Your task to perform on an android device: manage bookmarks in the chrome app Image 0: 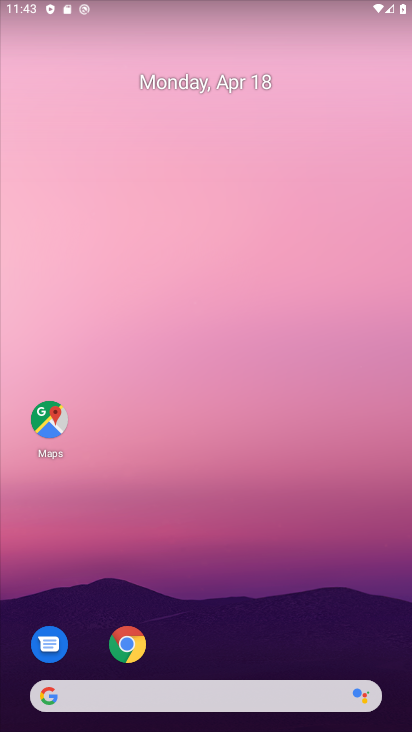
Step 0: click (134, 646)
Your task to perform on an android device: manage bookmarks in the chrome app Image 1: 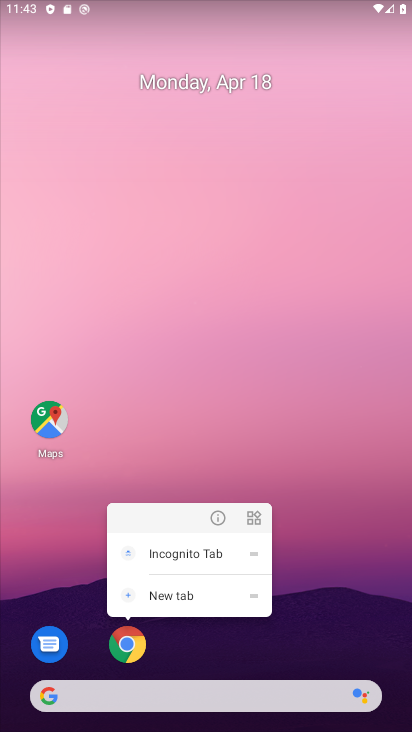
Step 1: click (117, 639)
Your task to perform on an android device: manage bookmarks in the chrome app Image 2: 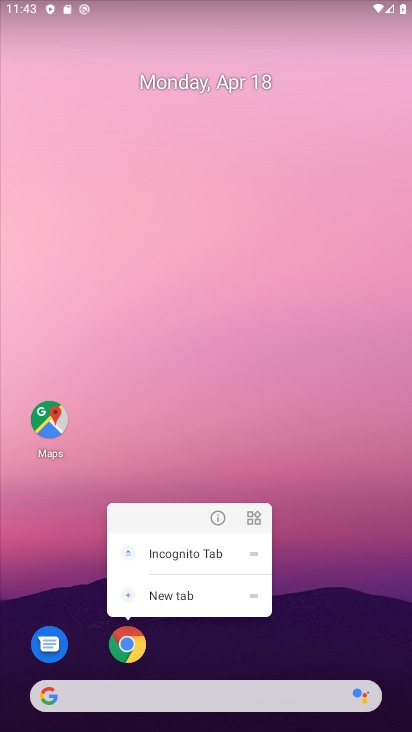
Step 2: click (123, 657)
Your task to perform on an android device: manage bookmarks in the chrome app Image 3: 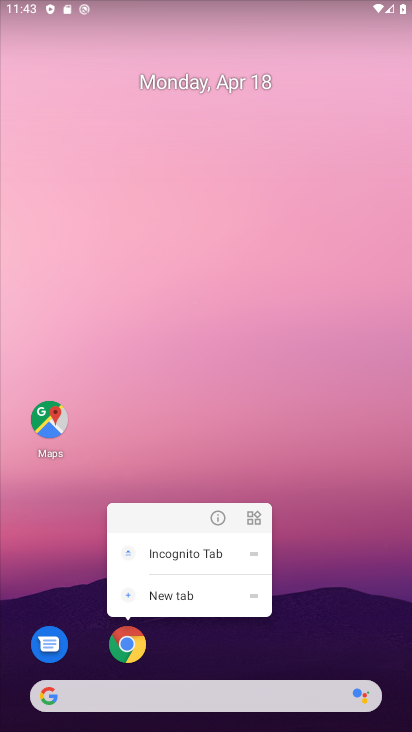
Step 3: click (128, 656)
Your task to perform on an android device: manage bookmarks in the chrome app Image 4: 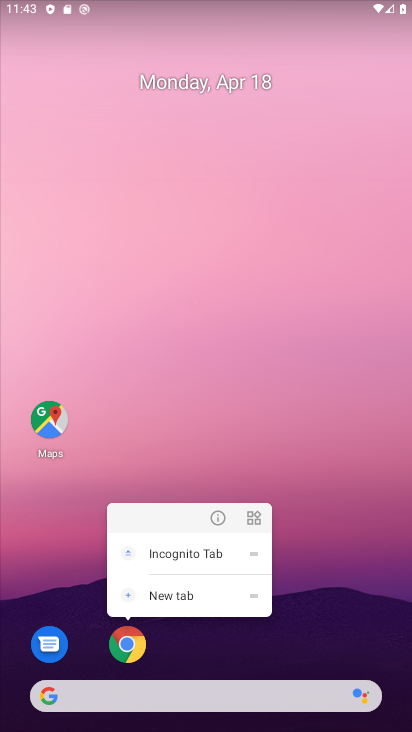
Step 4: click (131, 650)
Your task to perform on an android device: manage bookmarks in the chrome app Image 5: 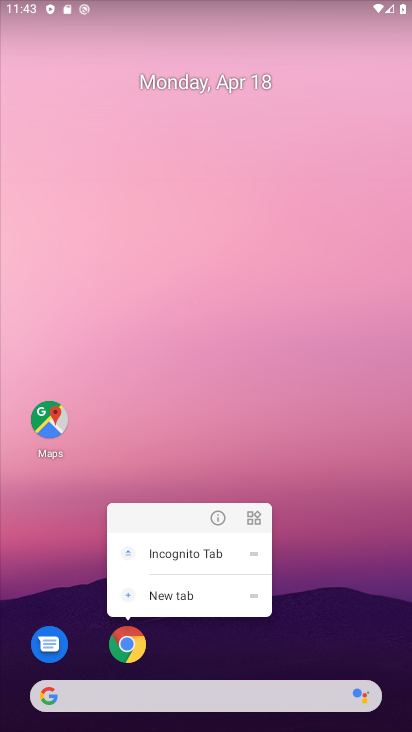
Step 5: click (139, 654)
Your task to perform on an android device: manage bookmarks in the chrome app Image 6: 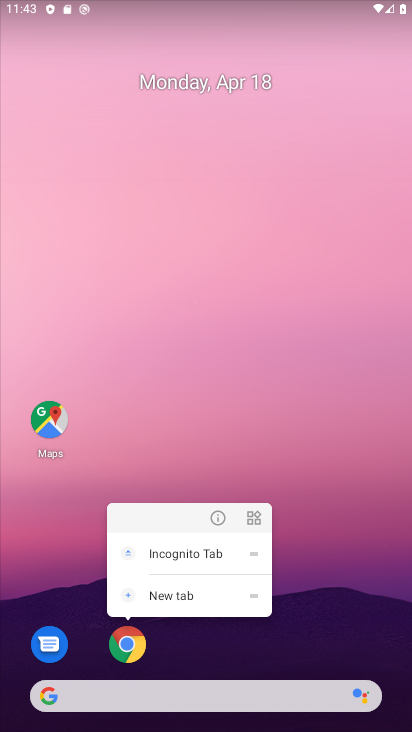
Step 6: click (132, 648)
Your task to perform on an android device: manage bookmarks in the chrome app Image 7: 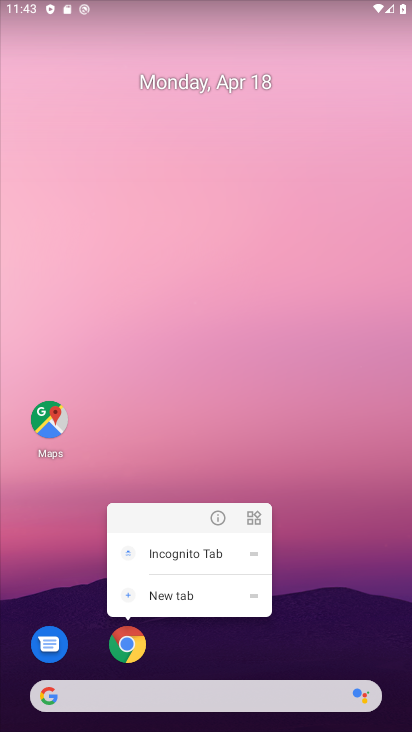
Step 7: click (131, 648)
Your task to perform on an android device: manage bookmarks in the chrome app Image 8: 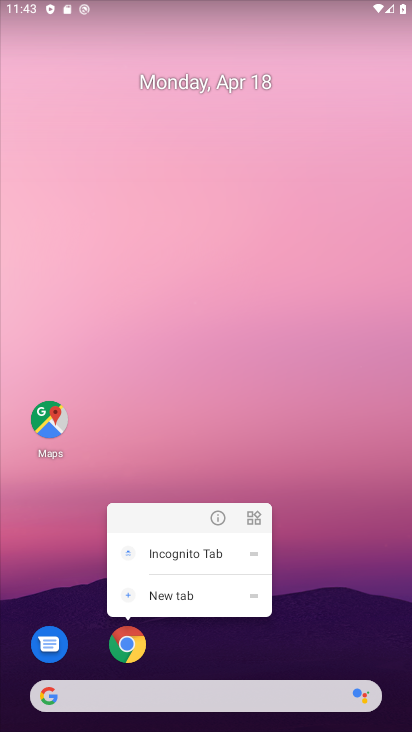
Step 8: click (130, 650)
Your task to perform on an android device: manage bookmarks in the chrome app Image 9: 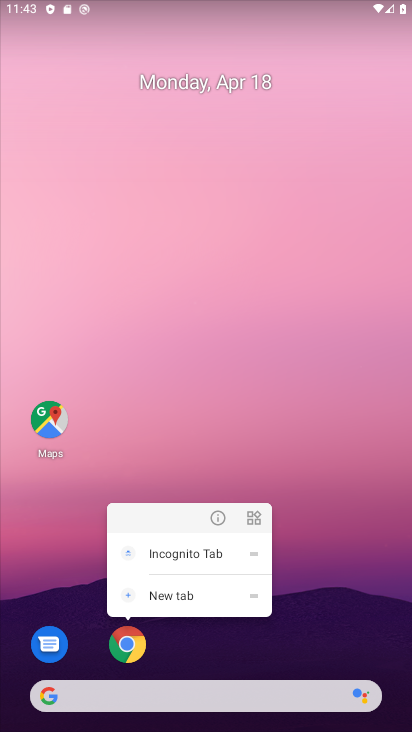
Step 9: click (127, 647)
Your task to perform on an android device: manage bookmarks in the chrome app Image 10: 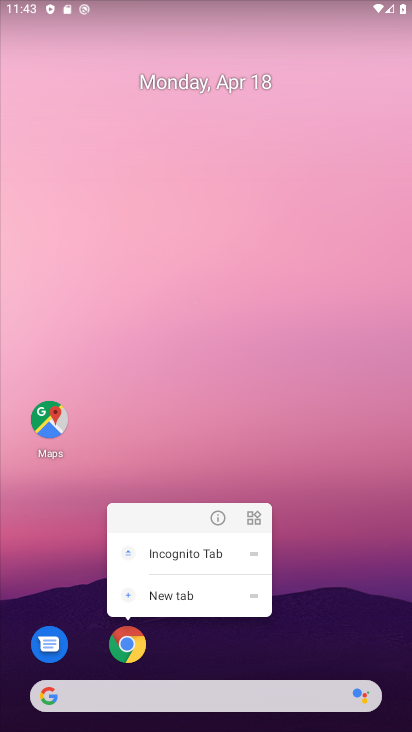
Step 10: click (111, 639)
Your task to perform on an android device: manage bookmarks in the chrome app Image 11: 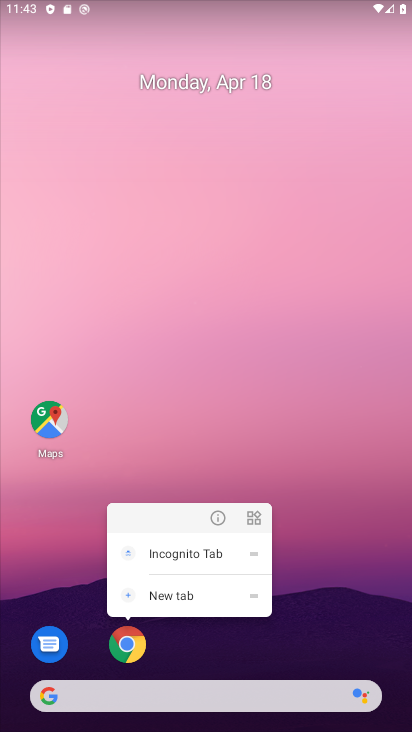
Step 11: click (130, 646)
Your task to perform on an android device: manage bookmarks in the chrome app Image 12: 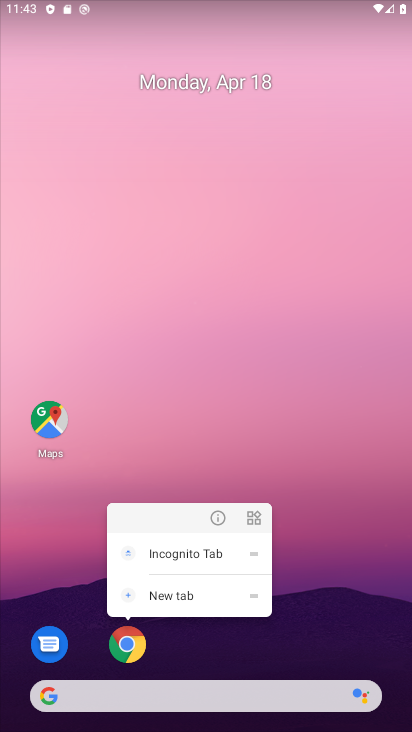
Step 12: click (120, 637)
Your task to perform on an android device: manage bookmarks in the chrome app Image 13: 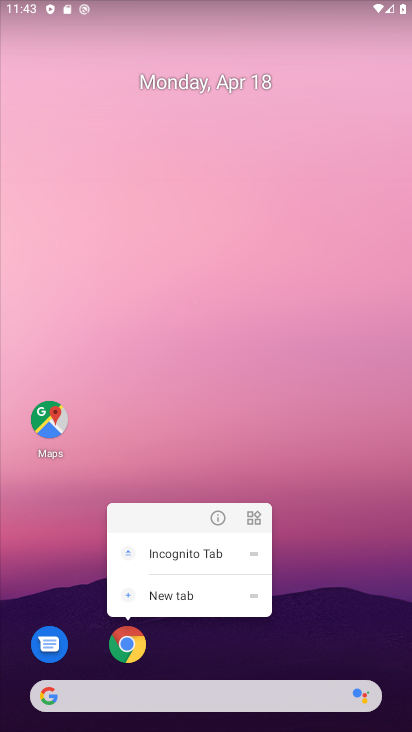
Step 13: click (130, 637)
Your task to perform on an android device: manage bookmarks in the chrome app Image 14: 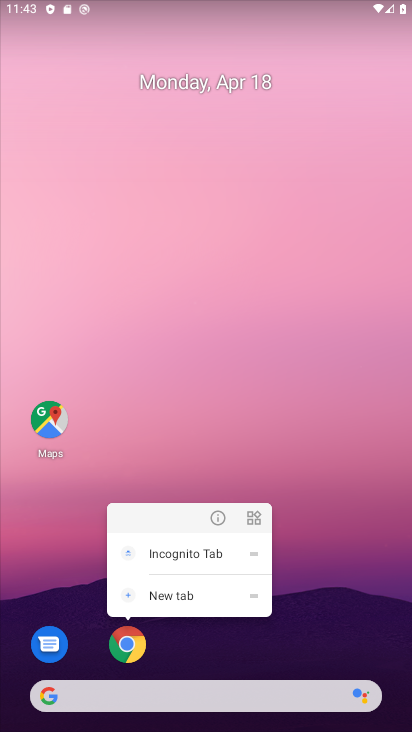
Step 14: click (123, 652)
Your task to perform on an android device: manage bookmarks in the chrome app Image 15: 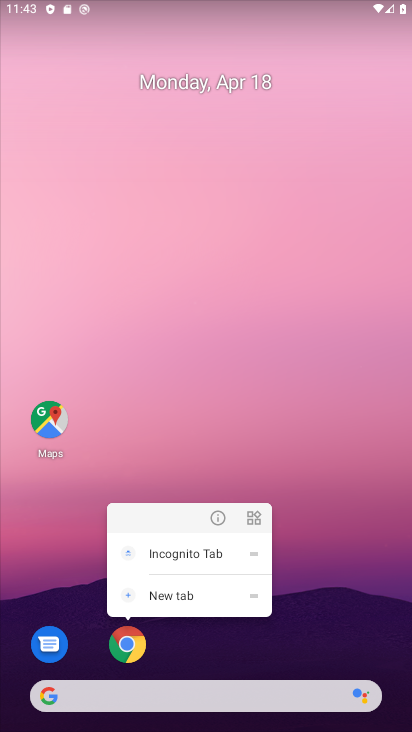
Step 15: click (114, 644)
Your task to perform on an android device: manage bookmarks in the chrome app Image 16: 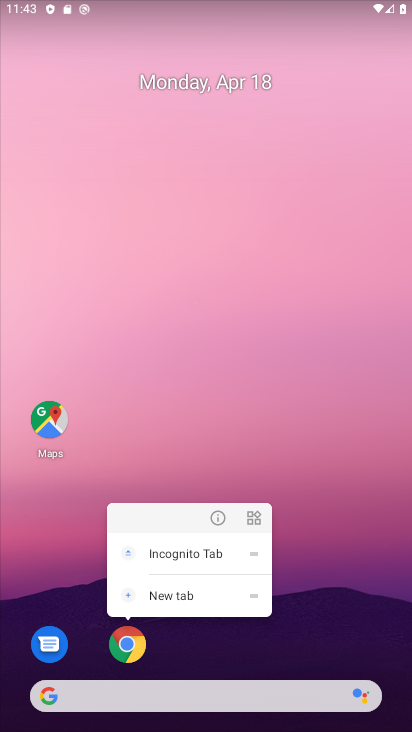
Step 16: click (132, 652)
Your task to perform on an android device: manage bookmarks in the chrome app Image 17: 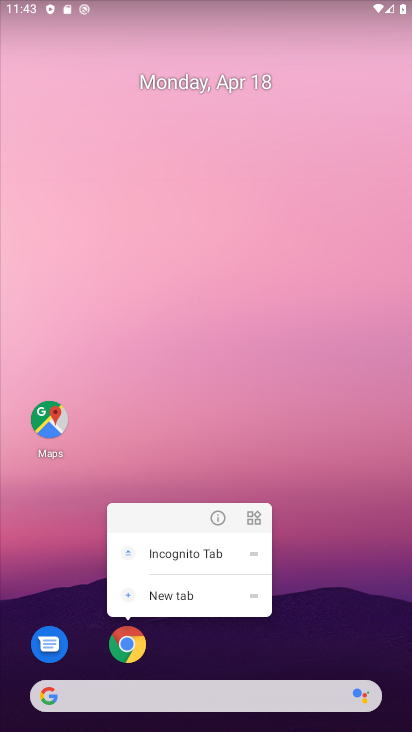
Step 17: click (129, 642)
Your task to perform on an android device: manage bookmarks in the chrome app Image 18: 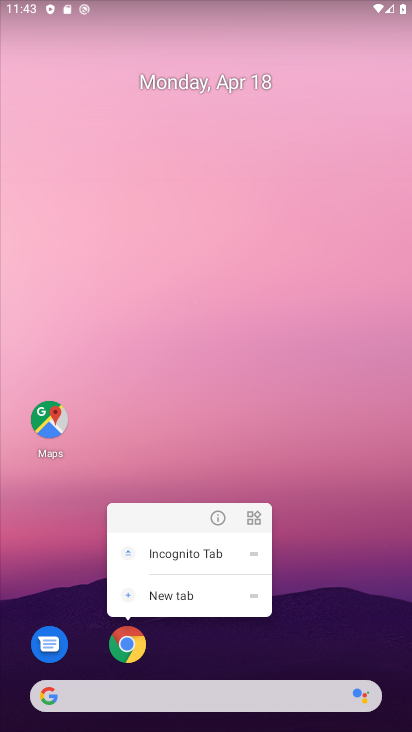
Step 18: click (118, 651)
Your task to perform on an android device: manage bookmarks in the chrome app Image 19: 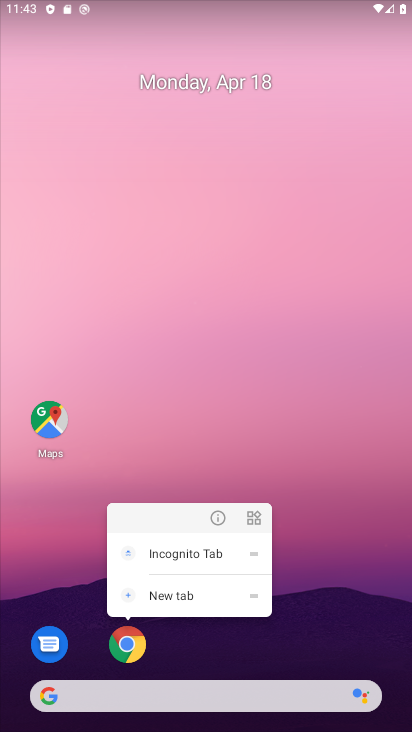
Step 19: click (122, 643)
Your task to perform on an android device: manage bookmarks in the chrome app Image 20: 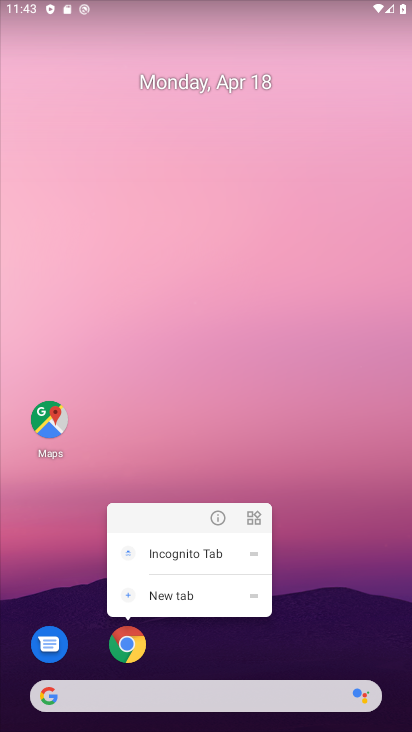
Step 20: click (131, 650)
Your task to perform on an android device: manage bookmarks in the chrome app Image 21: 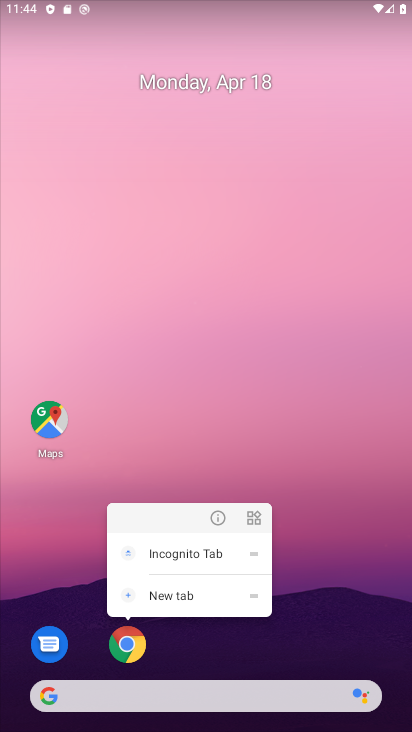
Step 21: click (131, 650)
Your task to perform on an android device: manage bookmarks in the chrome app Image 22: 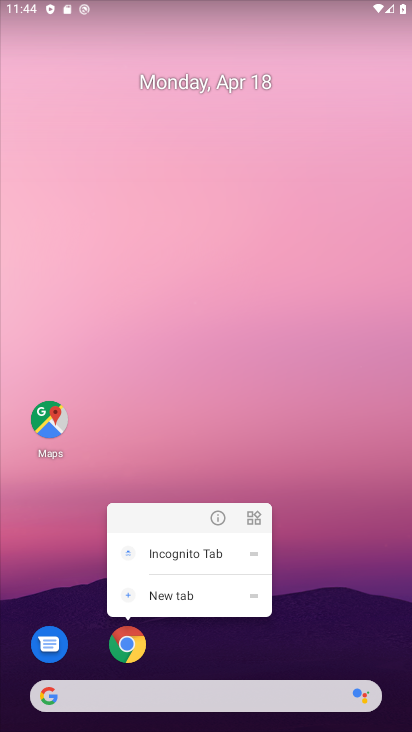
Step 22: drag from (323, 403) to (390, 143)
Your task to perform on an android device: manage bookmarks in the chrome app Image 23: 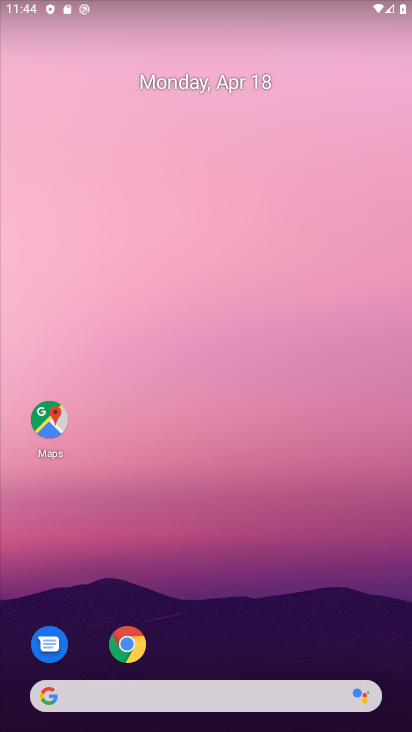
Step 23: drag from (233, 656) to (330, 73)
Your task to perform on an android device: manage bookmarks in the chrome app Image 24: 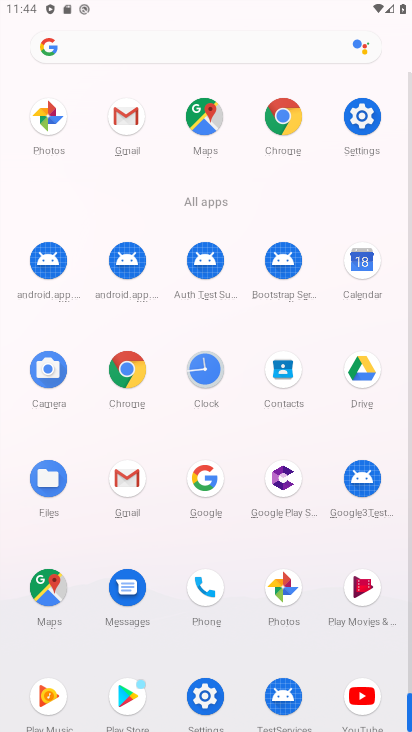
Step 24: click (128, 376)
Your task to perform on an android device: manage bookmarks in the chrome app Image 25: 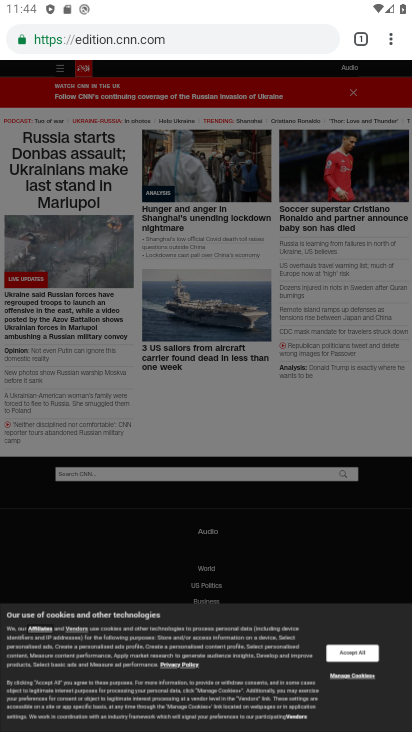
Step 25: click (389, 49)
Your task to perform on an android device: manage bookmarks in the chrome app Image 26: 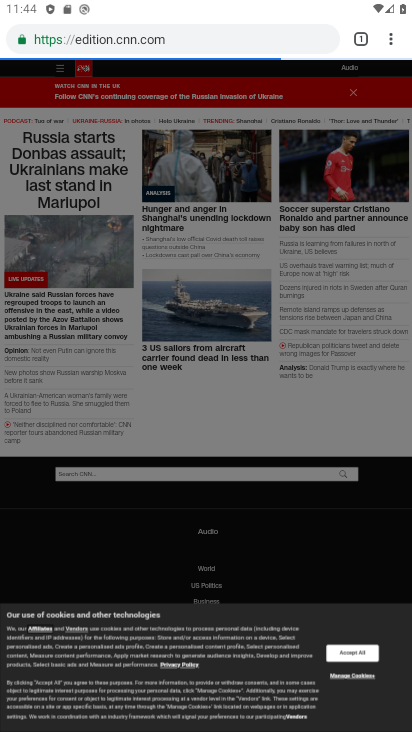
Step 26: task complete